Your task to perform on an android device: Go to Google maps Image 0: 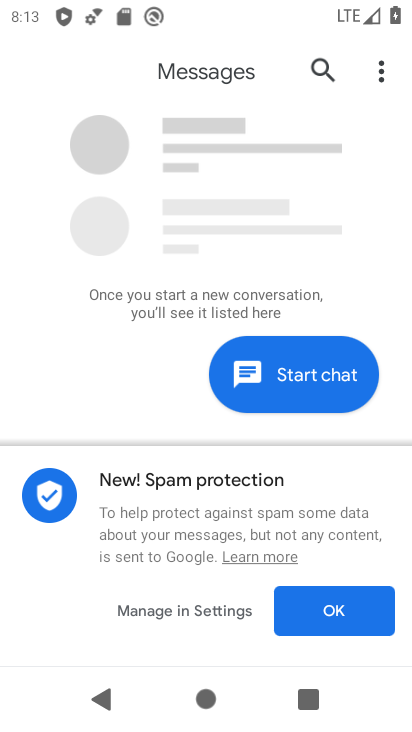
Step 0: press home button
Your task to perform on an android device: Go to Google maps Image 1: 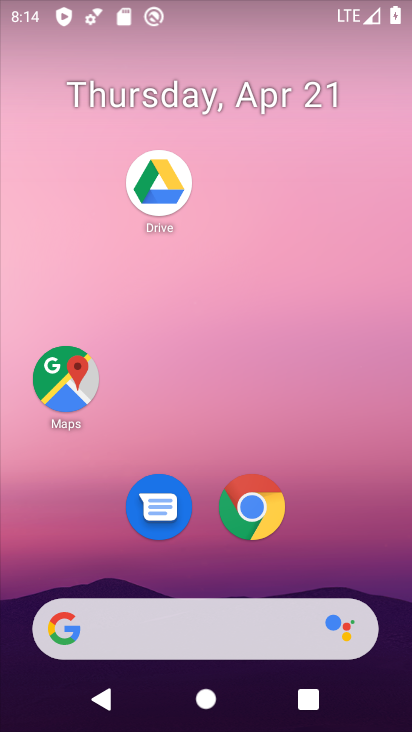
Step 1: drag from (360, 543) to (381, 126)
Your task to perform on an android device: Go to Google maps Image 2: 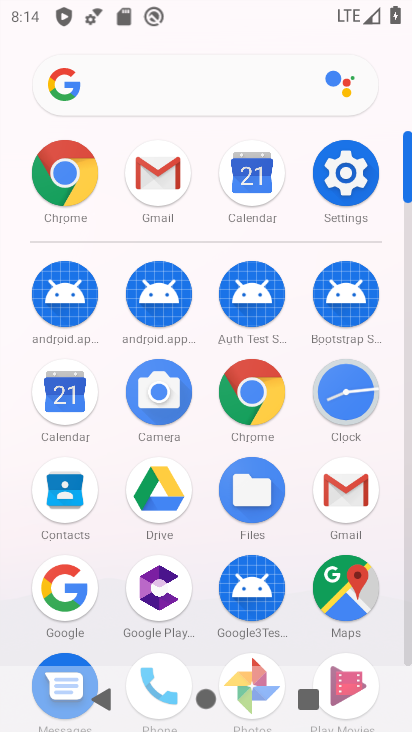
Step 2: drag from (394, 534) to (393, 232)
Your task to perform on an android device: Go to Google maps Image 3: 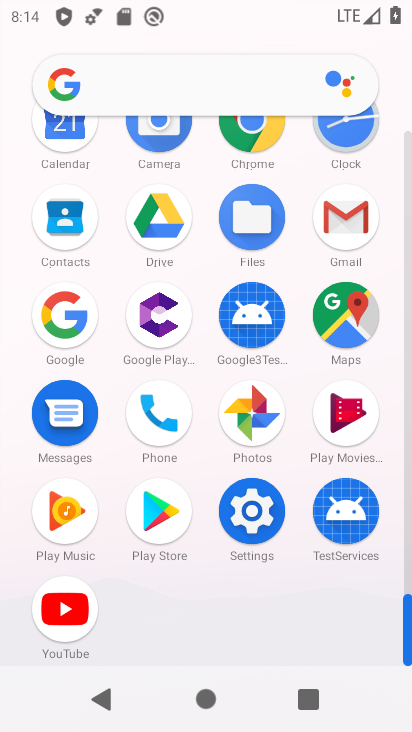
Step 3: click (347, 308)
Your task to perform on an android device: Go to Google maps Image 4: 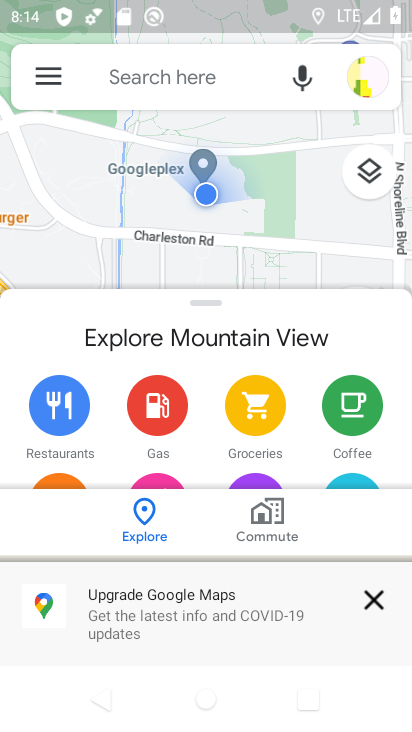
Step 4: task complete